Your task to perform on an android device: set the stopwatch Image 0: 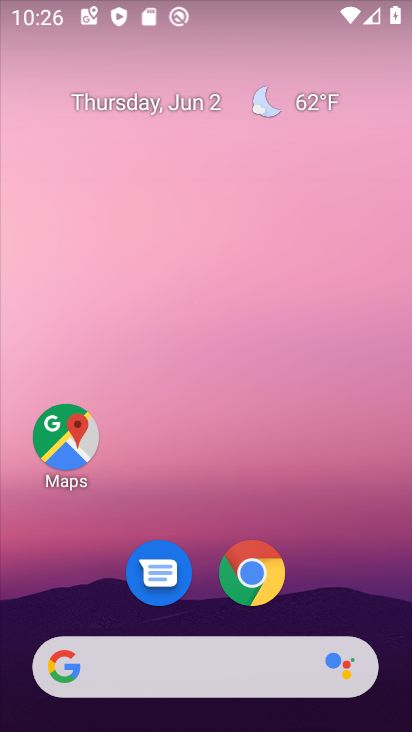
Step 0: drag from (228, 527) to (405, 4)
Your task to perform on an android device: set the stopwatch Image 1: 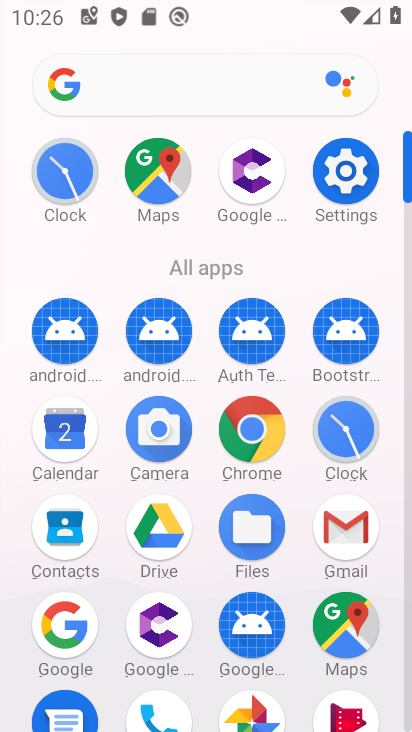
Step 1: click (365, 421)
Your task to perform on an android device: set the stopwatch Image 2: 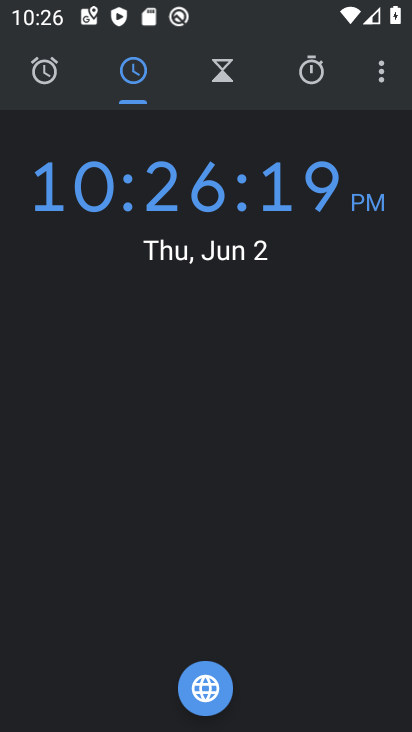
Step 2: click (314, 77)
Your task to perform on an android device: set the stopwatch Image 3: 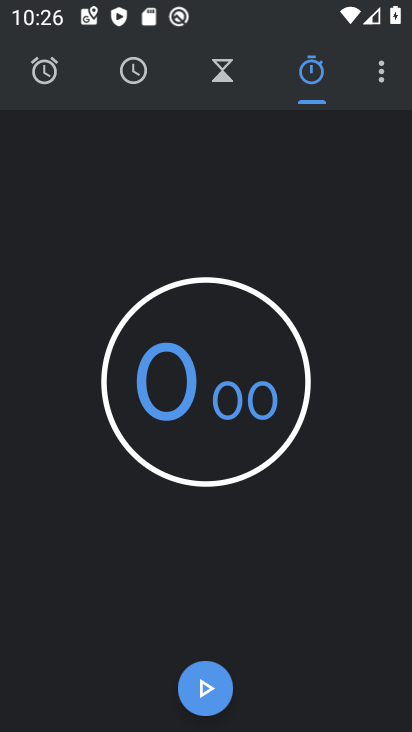
Step 3: click (222, 672)
Your task to perform on an android device: set the stopwatch Image 4: 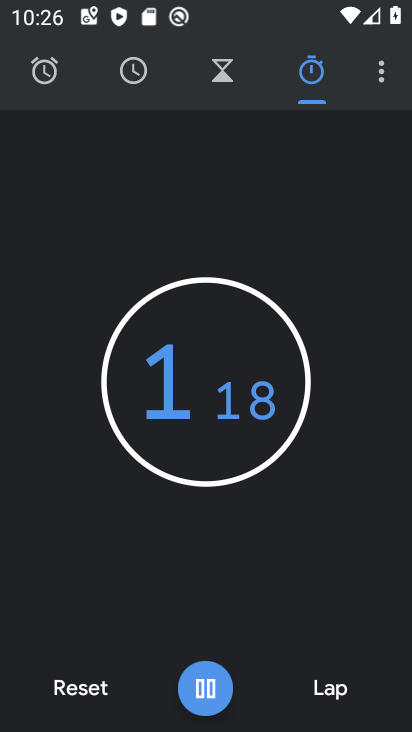
Step 4: task complete